Your task to perform on an android device: install app "Google News" Image 0: 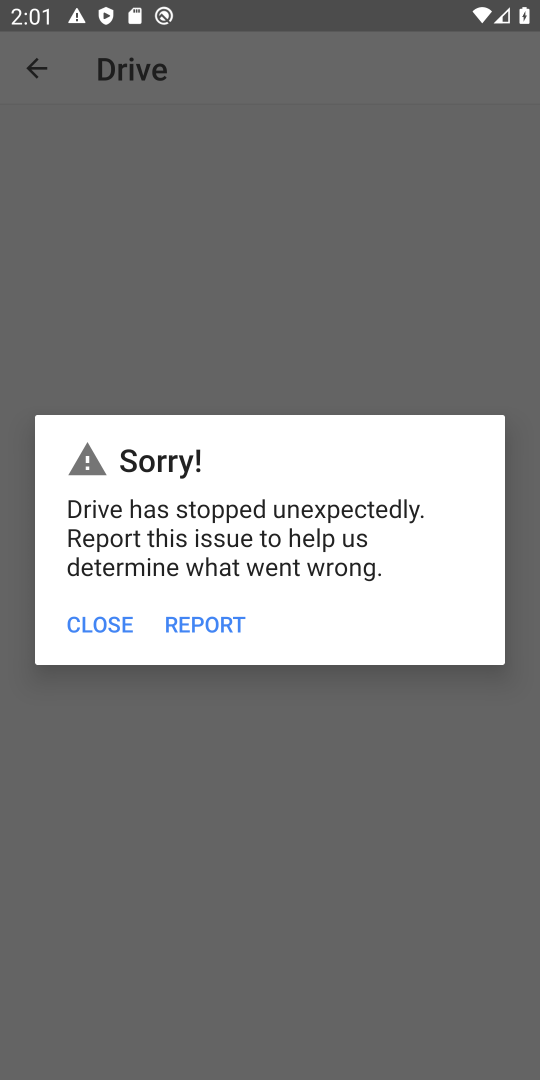
Step 0: press home button
Your task to perform on an android device: install app "Google News" Image 1: 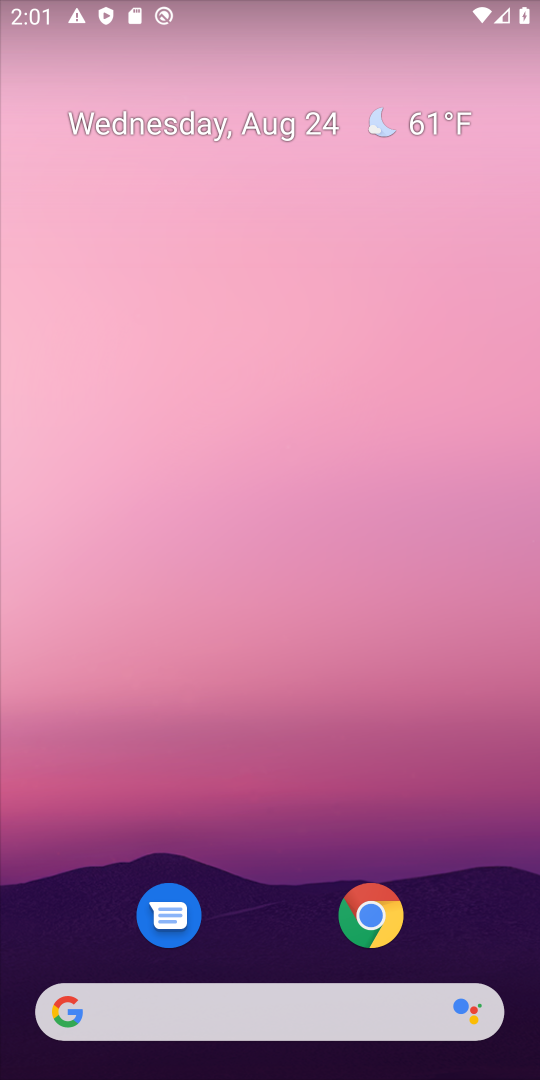
Step 1: drag from (266, 704) to (220, 317)
Your task to perform on an android device: install app "Google News" Image 2: 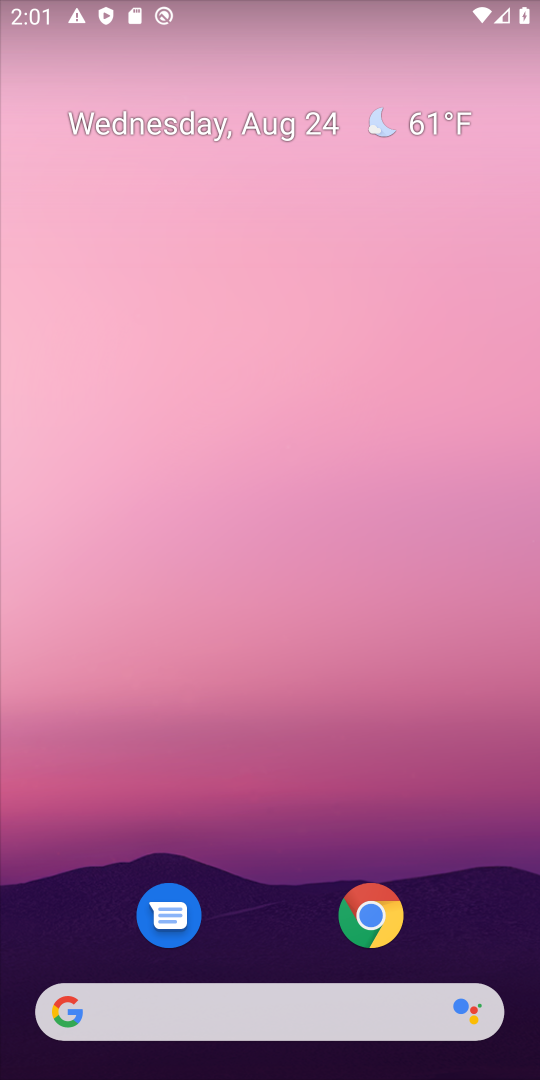
Step 2: drag from (260, 870) to (285, 234)
Your task to perform on an android device: install app "Google News" Image 3: 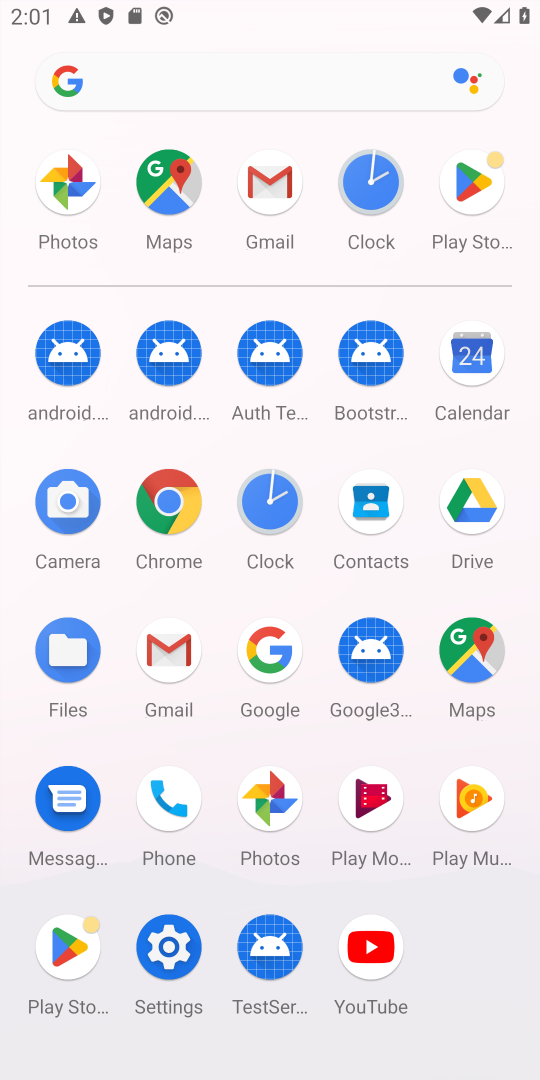
Step 3: click (477, 183)
Your task to perform on an android device: install app "Google News" Image 4: 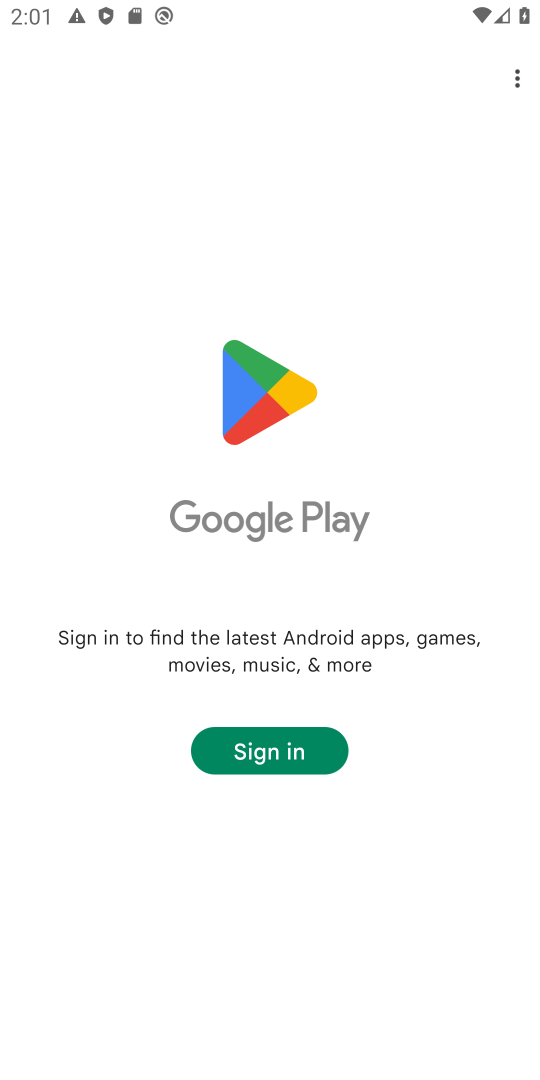
Step 4: task complete